Your task to perform on an android device: Find coffee shops on Maps Image 0: 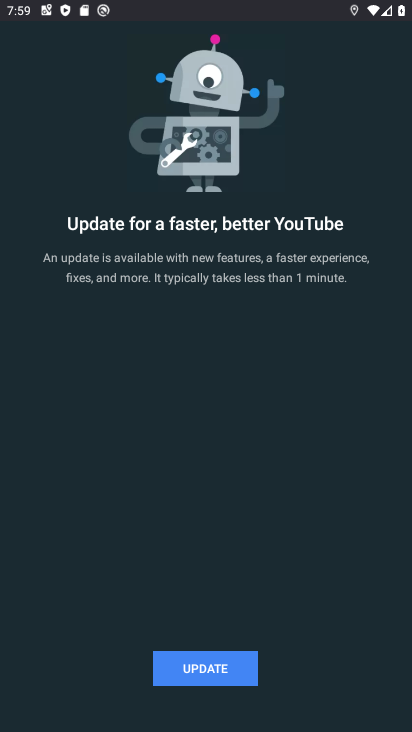
Step 0: drag from (210, 620) to (141, 290)
Your task to perform on an android device: Find coffee shops on Maps Image 1: 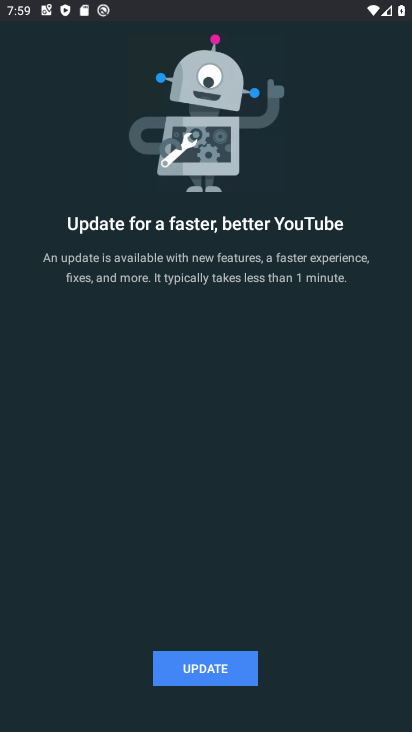
Step 1: press home button
Your task to perform on an android device: Find coffee shops on Maps Image 2: 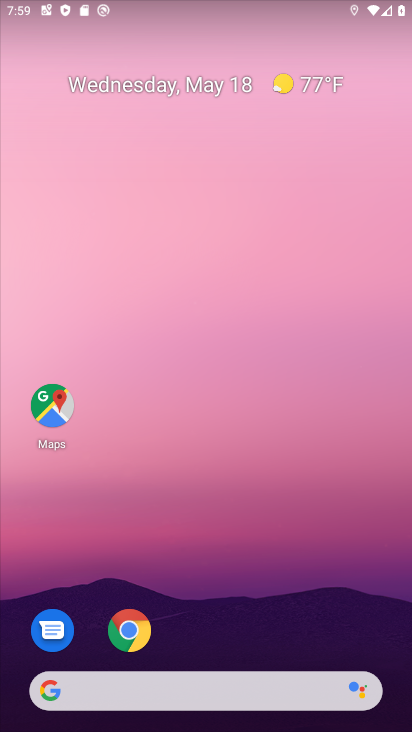
Step 2: click (47, 409)
Your task to perform on an android device: Find coffee shops on Maps Image 3: 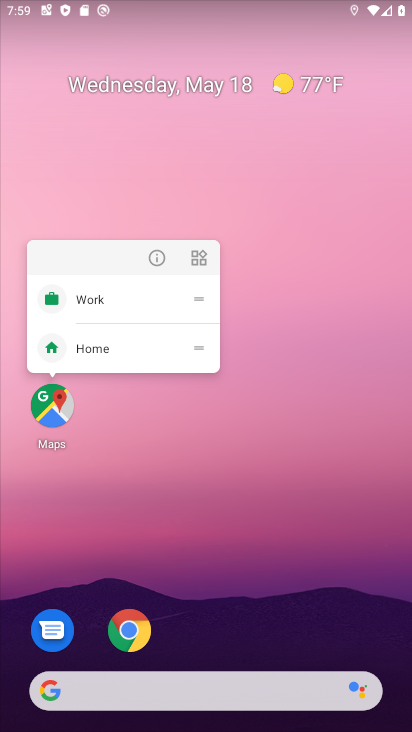
Step 3: click (45, 408)
Your task to perform on an android device: Find coffee shops on Maps Image 4: 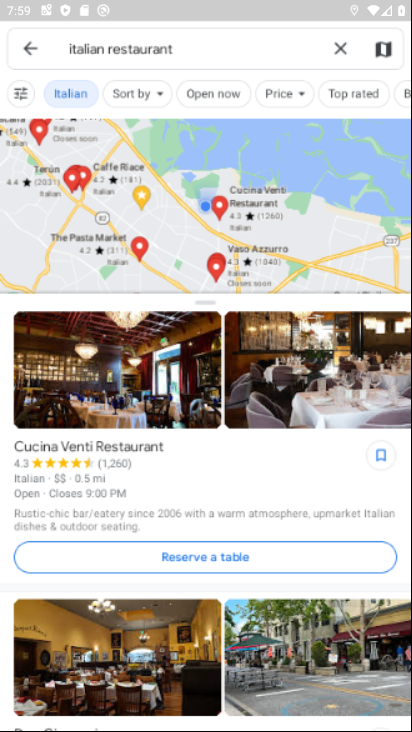
Step 4: click (348, 46)
Your task to perform on an android device: Find coffee shops on Maps Image 5: 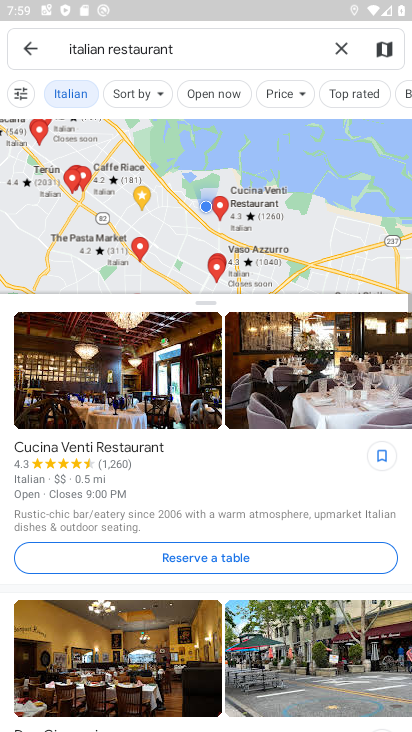
Step 5: click (341, 54)
Your task to perform on an android device: Find coffee shops on Maps Image 6: 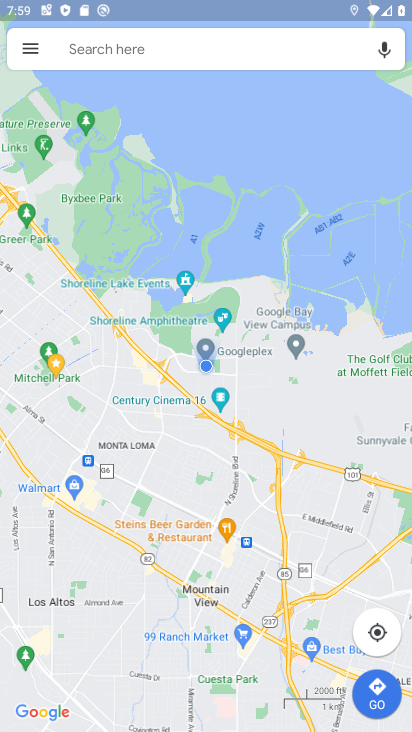
Step 6: click (211, 51)
Your task to perform on an android device: Find coffee shops on Maps Image 7: 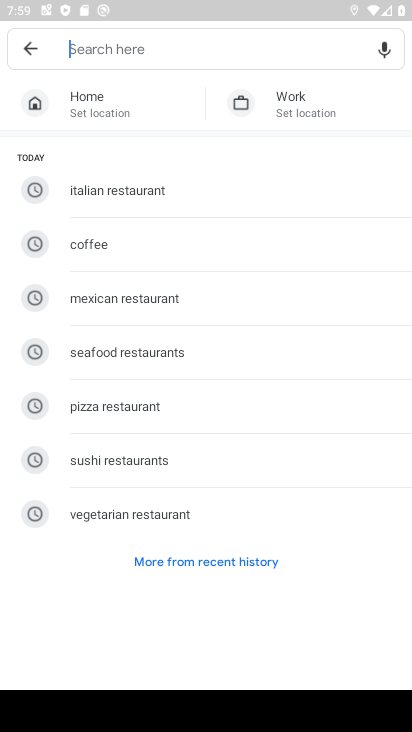
Step 7: type "coffee shop"
Your task to perform on an android device: Find coffee shops on Maps Image 8: 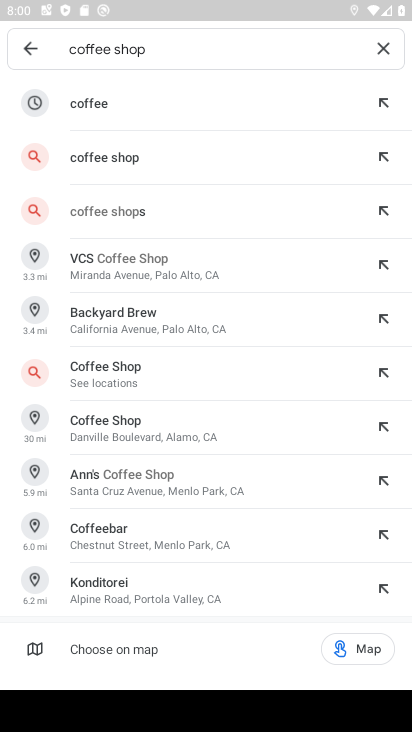
Step 8: click (200, 220)
Your task to perform on an android device: Find coffee shops on Maps Image 9: 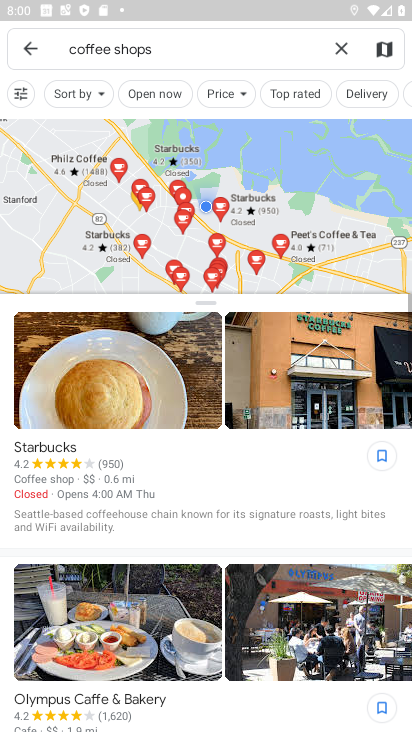
Step 9: task complete